Your task to perform on an android device: Open display settings Image 0: 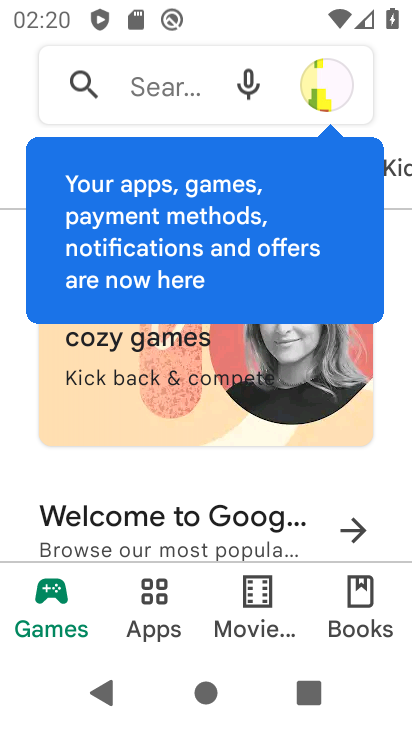
Step 0: press home button
Your task to perform on an android device: Open display settings Image 1: 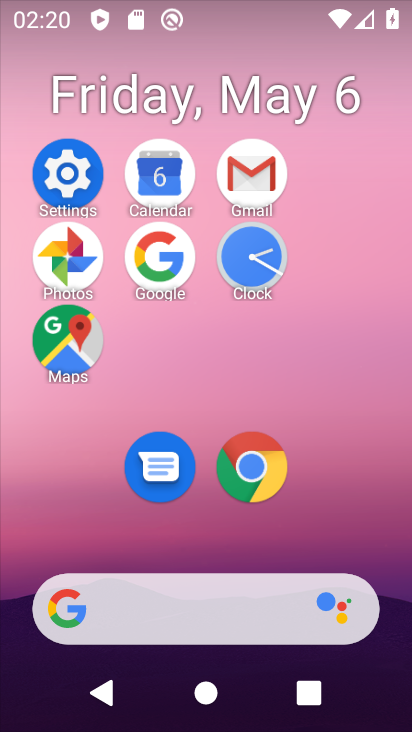
Step 1: click (79, 168)
Your task to perform on an android device: Open display settings Image 2: 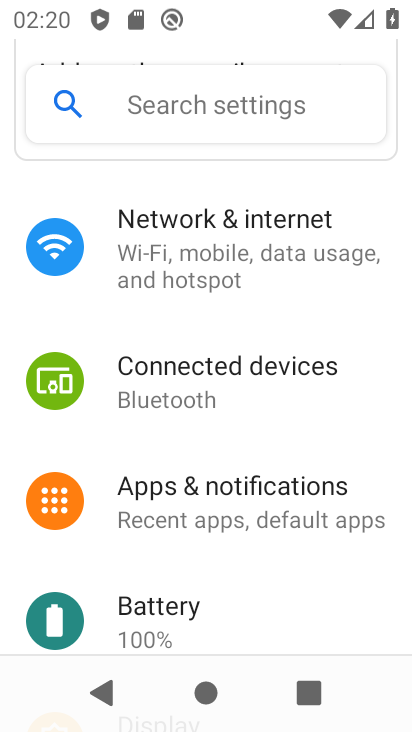
Step 2: drag from (263, 561) to (277, 179)
Your task to perform on an android device: Open display settings Image 3: 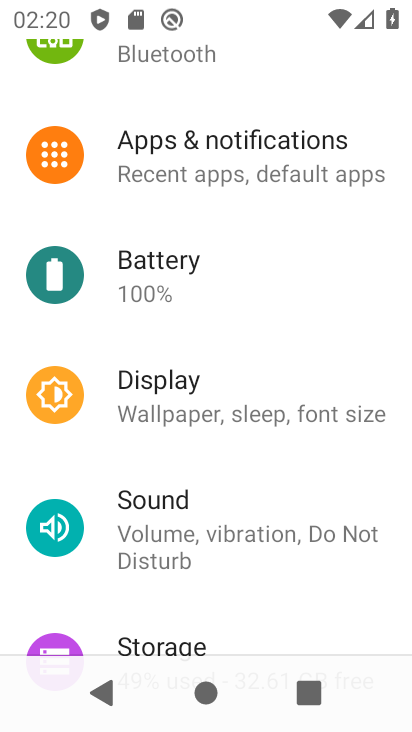
Step 3: click (294, 419)
Your task to perform on an android device: Open display settings Image 4: 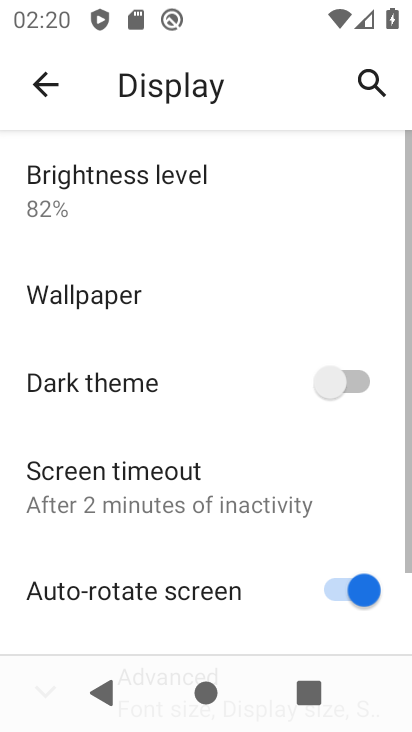
Step 4: task complete